Your task to perform on an android device: delete location history Image 0: 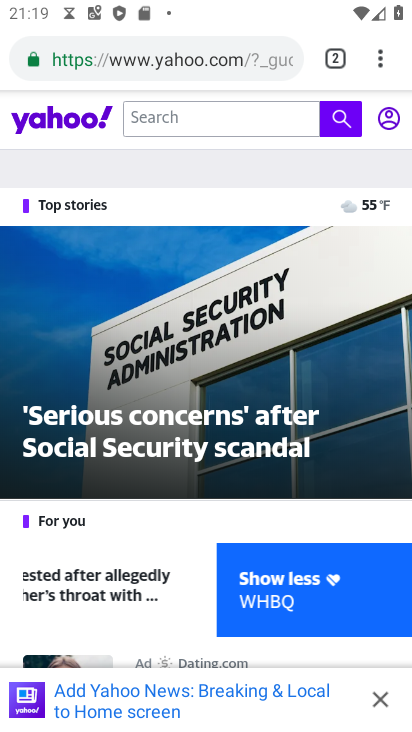
Step 0: press home button
Your task to perform on an android device: delete location history Image 1: 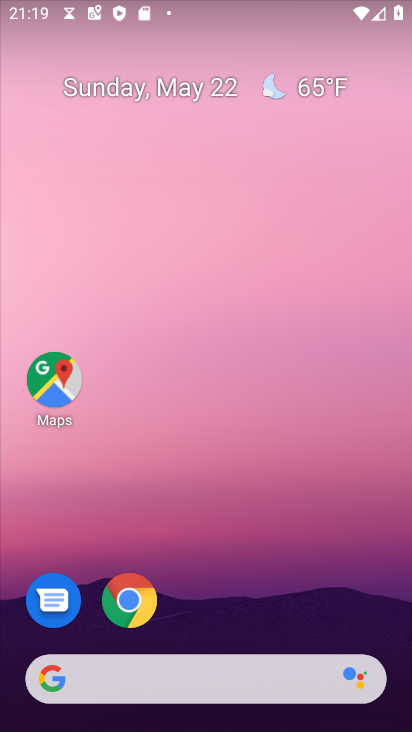
Step 1: drag from (211, 620) to (232, 188)
Your task to perform on an android device: delete location history Image 2: 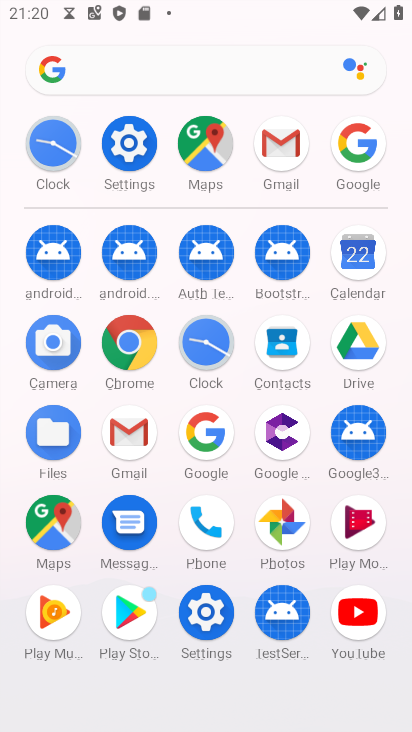
Step 2: click (60, 527)
Your task to perform on an android device: delete location history Image 3: 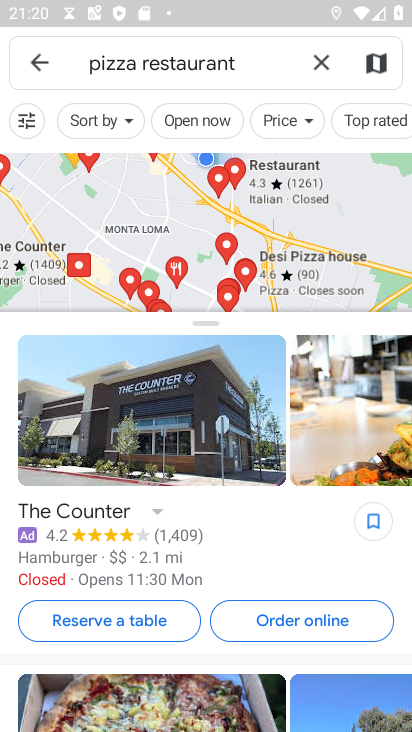
Step 3: click (43, 71)
Your task to perform on an android device: delete location history Image 4: 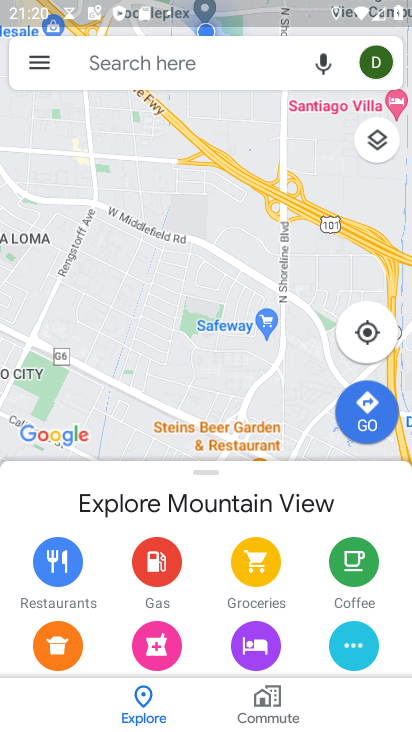
Step 4: click (28, 62)
Your task to perform on an android device: delete location history Image 5: 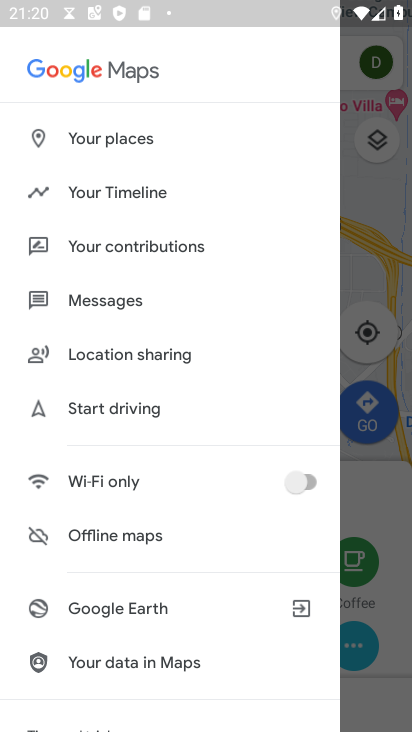
Step 5: drag from (74, 195) to (138, 196)
Your task to perform on an android device: delete location history Image 6: 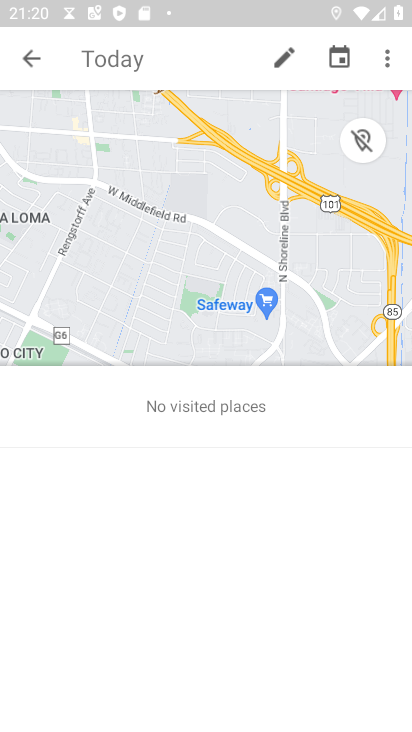
Step 6: click (393, 48)
Your task to perform on an android device: delete location history Image 7: 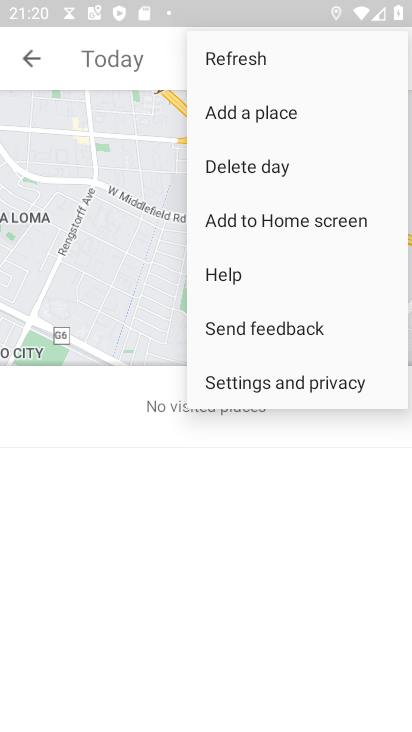
Step 7: click (271, 382)
Your task to perform on an android device: delete location history Image 8: 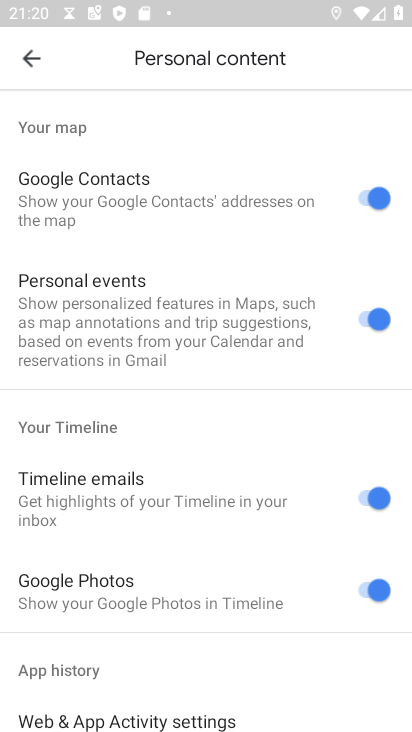
Step 8: drag from (190, 625) to (175, 284)
Your task to perform on an android device: delete location history Image 9: 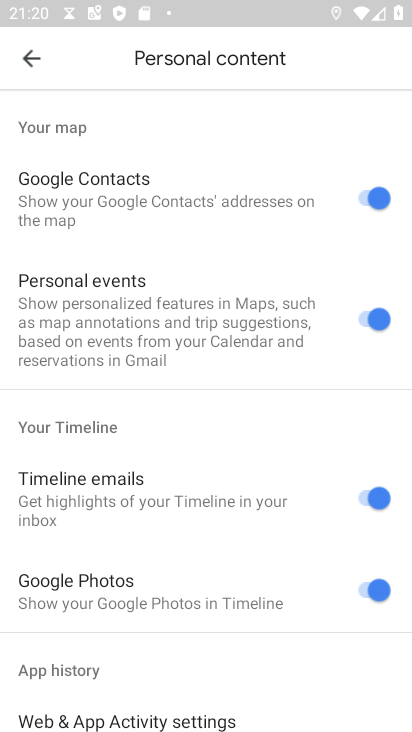
Step 9: drag from (197, 686) to (197, 314)
Your task to perform on an android device: delete location history Image 10: 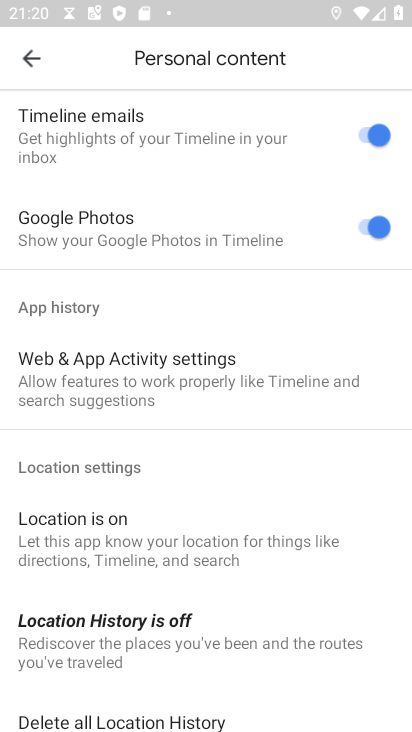
Step 10: drag from (217, 705) to (225, 242)
Your task to perform on an android device: delete location history Image 11: 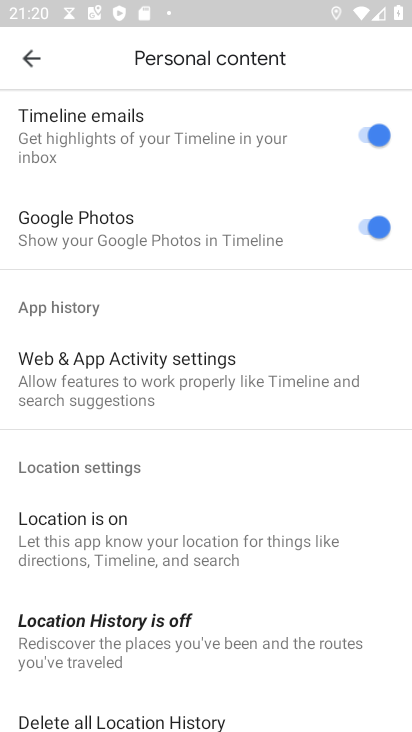
Step 11: drag from (218, 676) to (210, 326)
Your task to perform on an android device: delete location history Image 12: 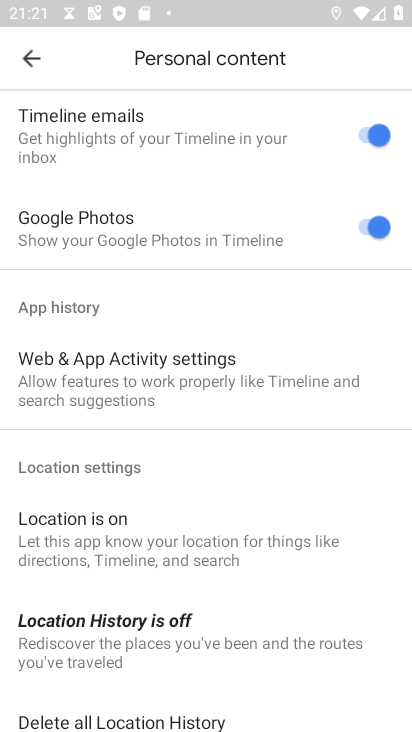
Step 12: click (174, 730)
Your task to perform on an android device: delete location history Image 13: 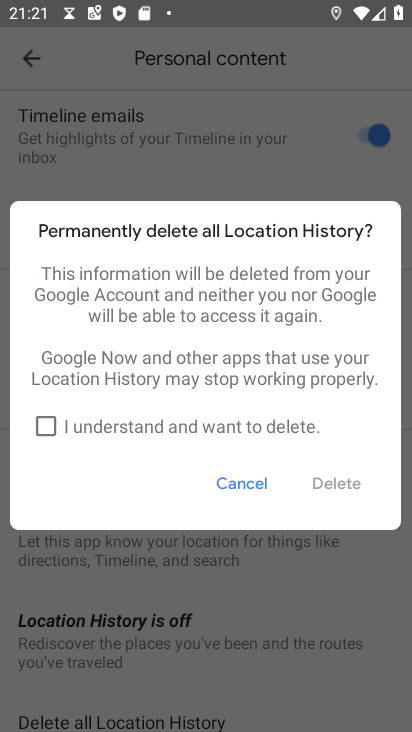
Step 13: click (47, 427)
Your task to perform on an android device: delete location history Image 14: 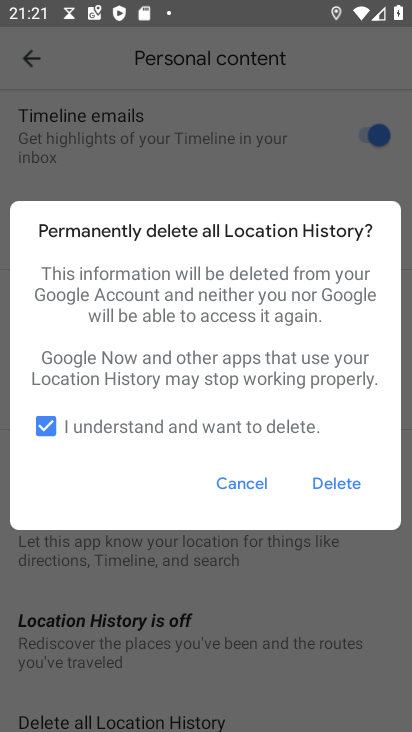
Step 14: click (332, 484)
Your task to perform on an android device: delete location history Image 15: 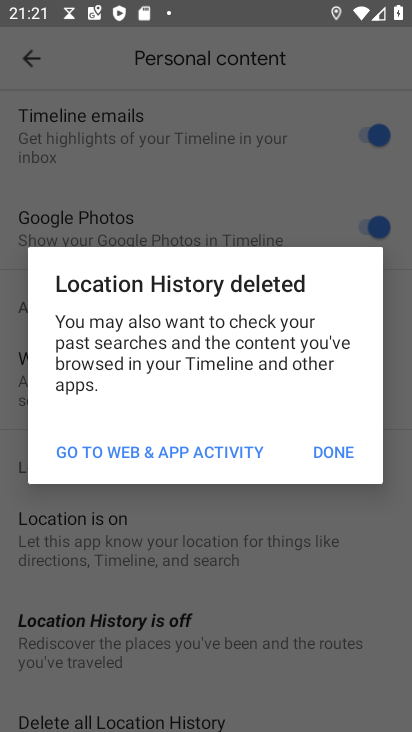
Step 15: click (335, 448)
Your task to perform on an android device: delete location history Image 16: 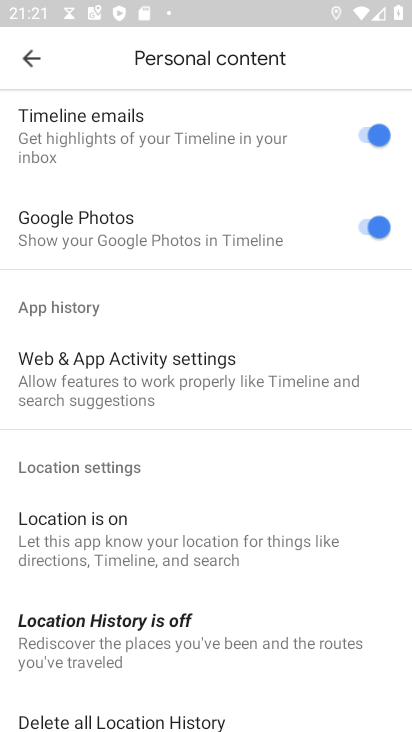
Step 16: task complete